Your task to perform on an android device: stop showing notifications on the lock screen Image 0: 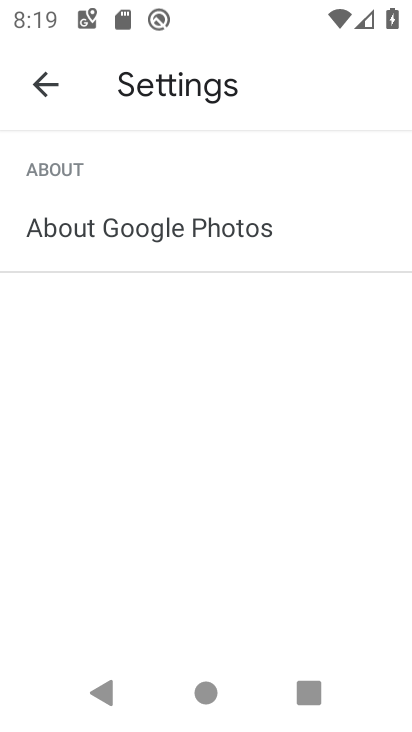
Step 0: press home button
Your task to perform on an android device: stop showing notifications on the lock screen Image 1: 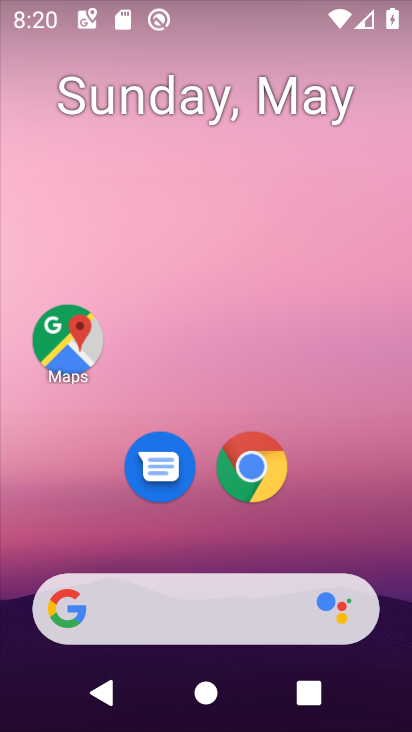
Step 1: drag from (378, 529) to (310, 163)
Your task to perform on an android device: stop showing notifications on the lock screen Image 2: 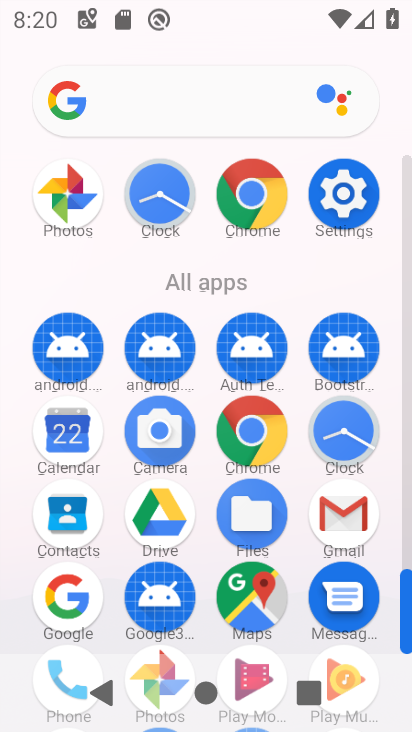
Step 2: click (328, 196)
Your task to perform on an android device: stop showing notifications on the lock screen Image 3: 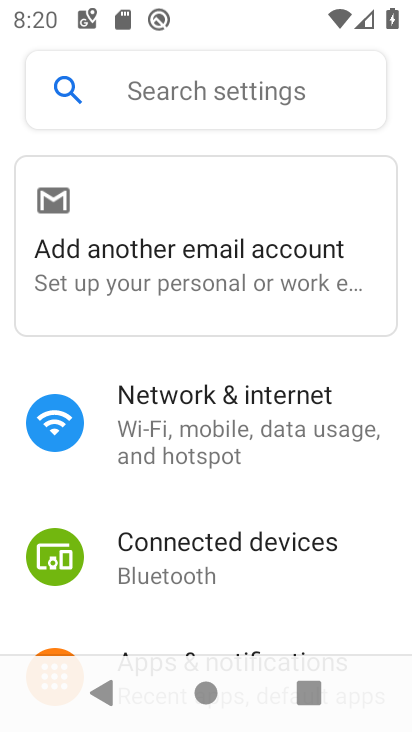
Step 3: drag from (277, 513) to (288, 224)
Your task to perform on an android device: stop showing notifications on the lock screen Image 4: 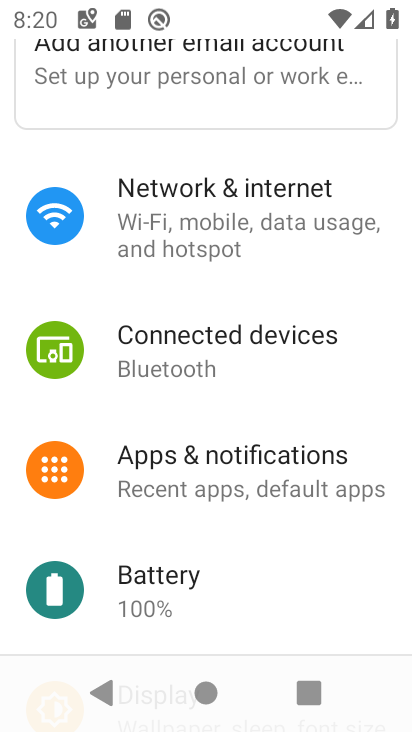
Step 4: click (255, 470)
Your task to perform on an android device: stop showing notifications on the lock screen Image 5: 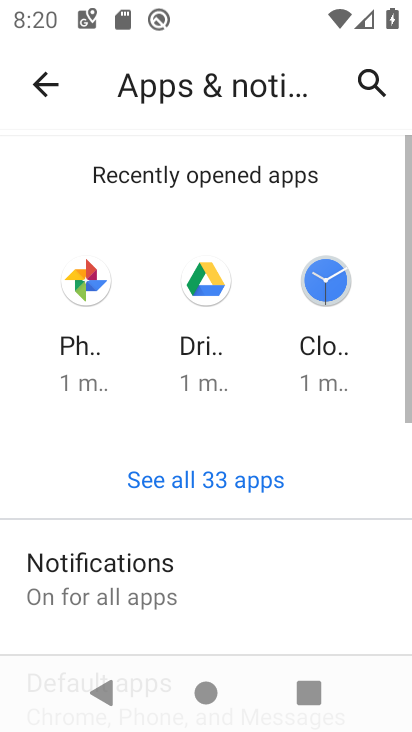
Step 5: click (167, 563)
Your task to perform on an android device: stop showing notifications on the lock screen Image 6: 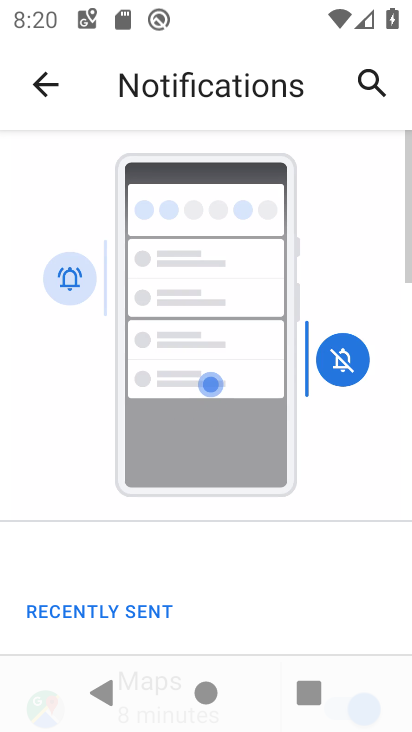
Step 6: drag from (216, 622) to (343, 258)
Your task to perform on an android device: stop showing notifications on the lock screen Image 7: 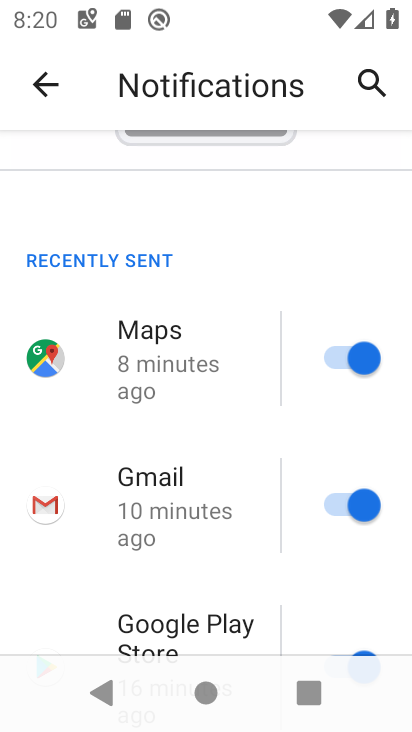
Step 7: drag from (264, 551) to (319, 222)
Your task to perform on an android device: stop showing notifications on the lock screen Image 8: 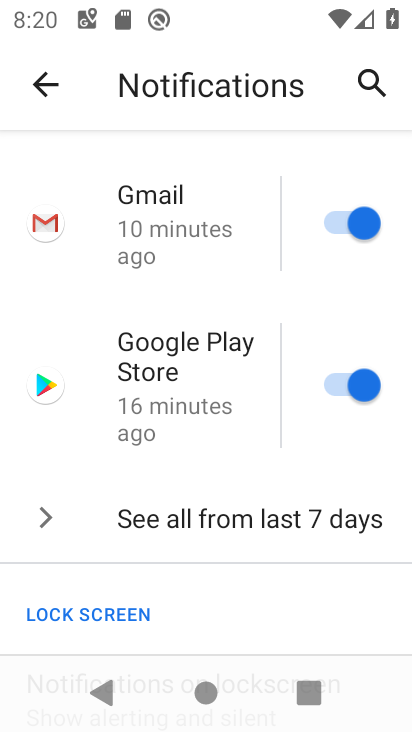
Step 8: drag from (243, 588) to (284, 243)
Your task to perform on an android device: stop showing notifications on the lock screen Image 9: 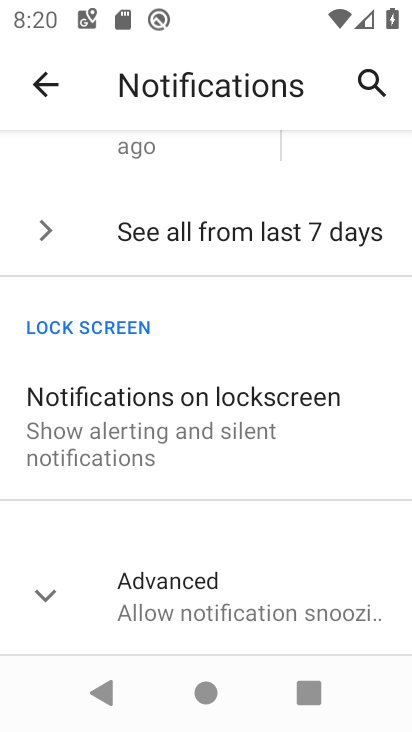
Step 9: click (245, 410)
Your task to perform on an android device: stop showing notifications on the lock screen Image 10: 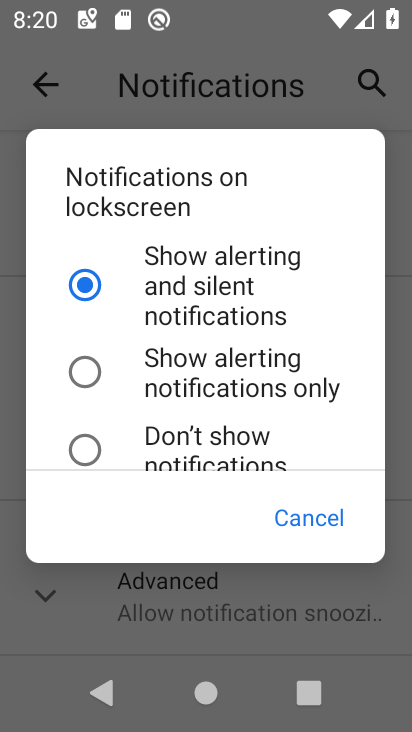
Step 10: click (94, 450)
Your task to perform on an android device: stop showing notifications on the lock screen Image 11: 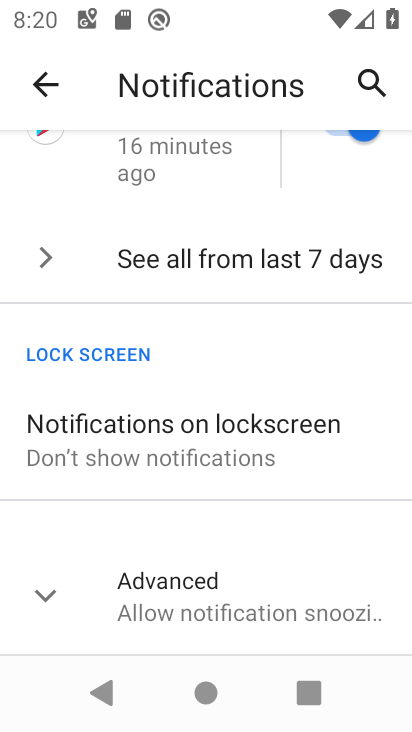
Step 11: task complete